Your task to perform on an android device: toggle translation in the chrome app Image 0: 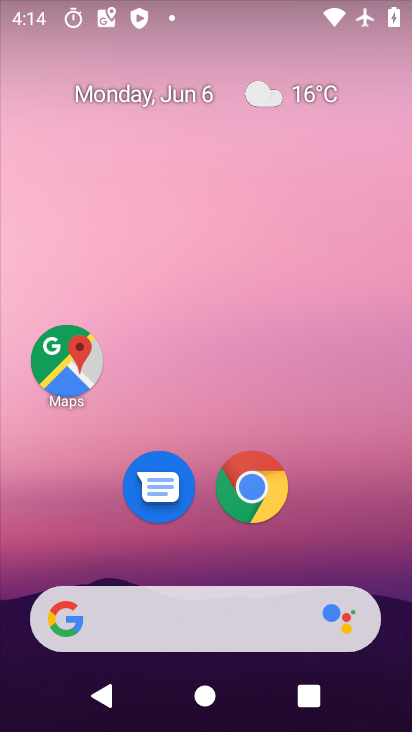
Step 0: click (253, 479)
Your task to perform on an android device: toggle translation in the chrome app Image 1: 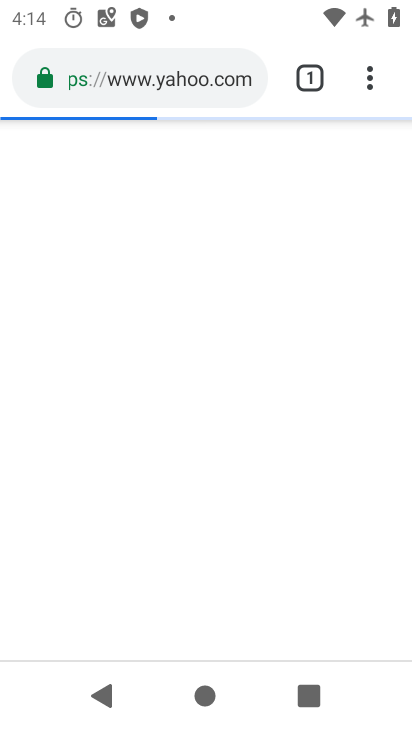
Step 1: drag from (367, 73) to (254, 550)
Your task to perform on an android device: toggle translation in the chrome app Image 2: 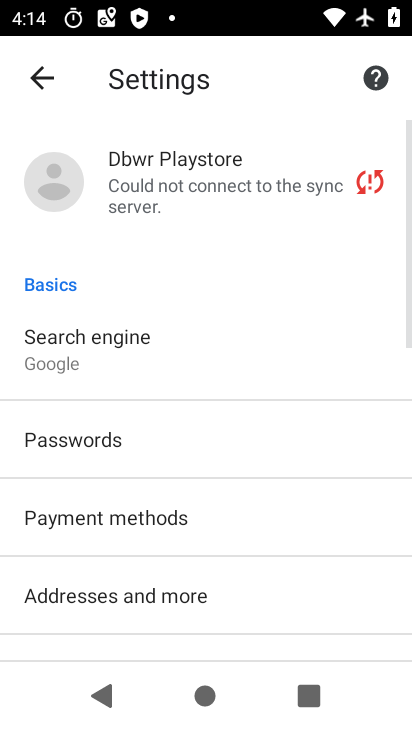
Step 2: drag from (227, 531) to (261, 124)
Your task to perform on an android device: toggle translation in the chrome app Image 3: 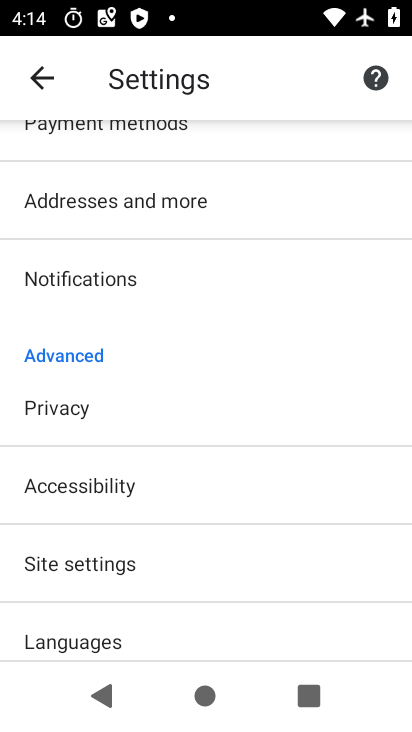
Step 3: click (94, 637)
Your task to perform on an android device: toggle translation in the chrome app Image 4: 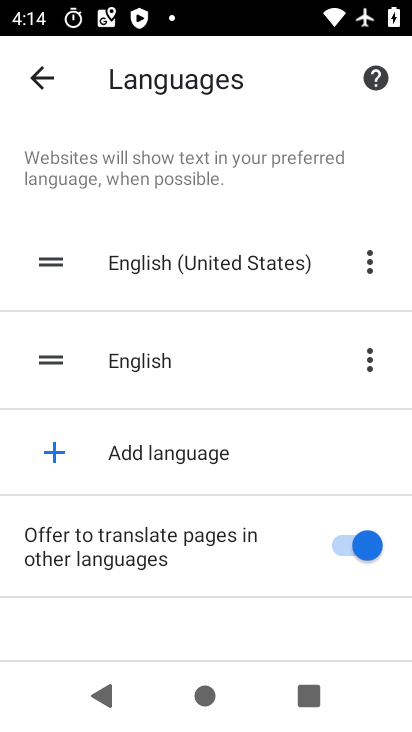
Step 4: click (343, 527)
Your task to perform on an android device: toggle translation in the chrome app Image 5: 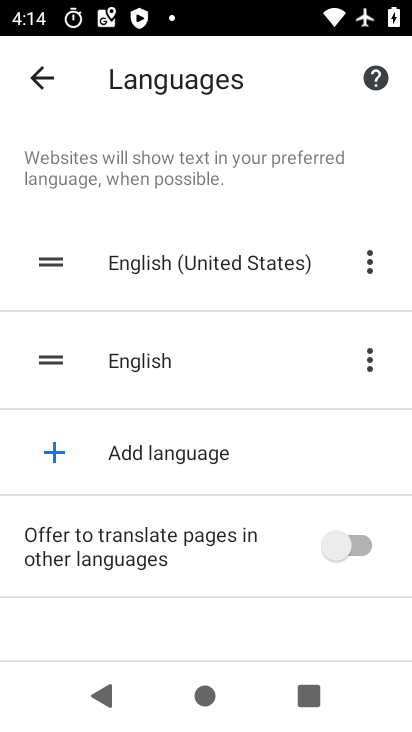
Step 5: task complete